Your task to perform on an android device: Open calendar and show me the fourth week of next month Image 0: 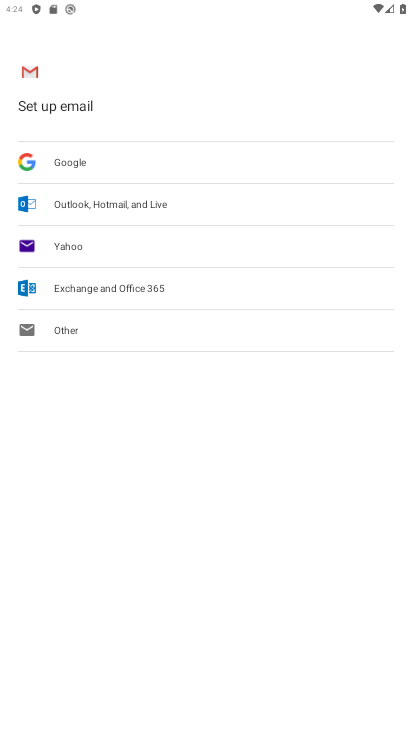
Step 0: press back button
Your task to perform on an android device: Open calendar and show me the fourth week of next month Image 1: 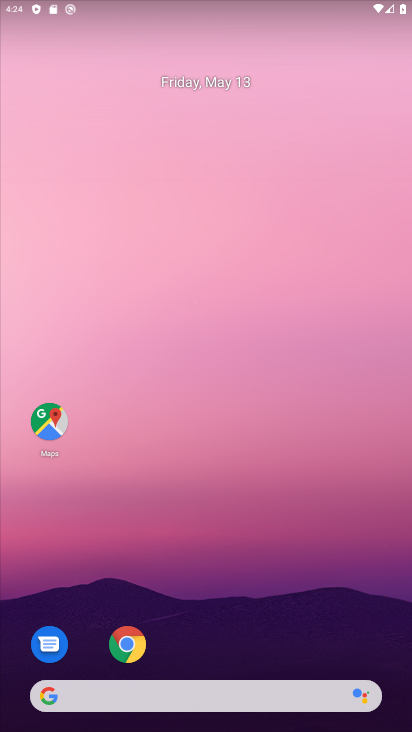
Step 1: drag from (245, 588) to (325, 40)
Your task to perform on an android device: Open calendar and show me the fourth week of next month Image 2: 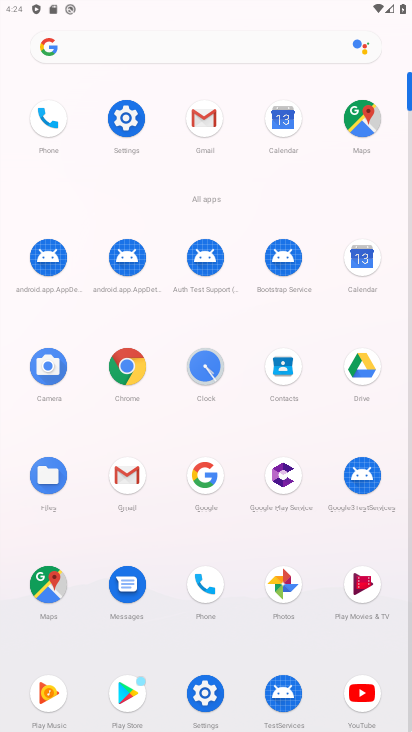
Step 2: click (356, 253)
Your task to perform on an android device: Open calendar and show me the fourth week of next month Image 3: 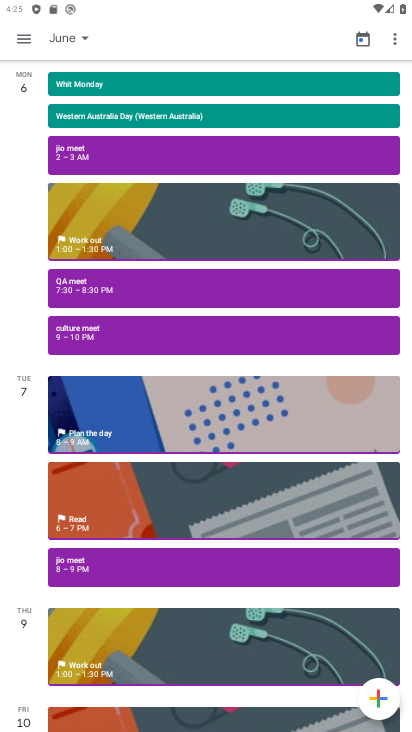
Step 3: click (56, 38)
Your task to perform on an android device: Open calendar and show me the fourth week of next month Image 4: 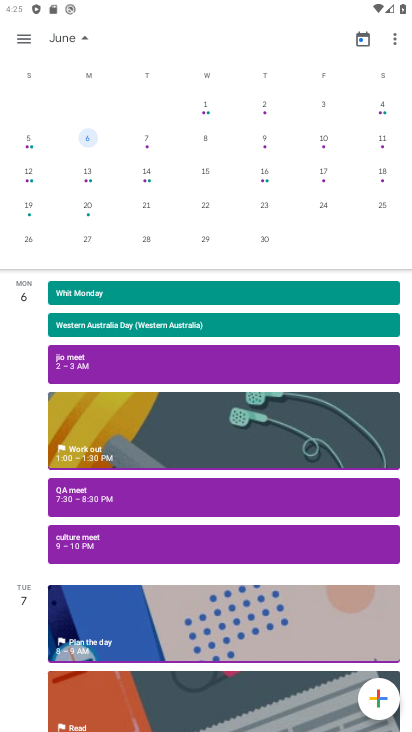
Step 4: click (88, 206)
Your task to perform on an android device: Open calendar and show me the fourth week of next month Image 5: 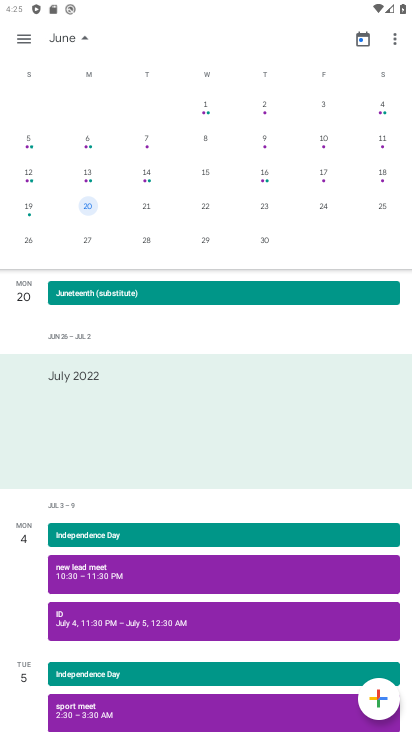
Step 5: task complete